Your task to perform on an android device: toggle pop-ups in chrome Image 0: 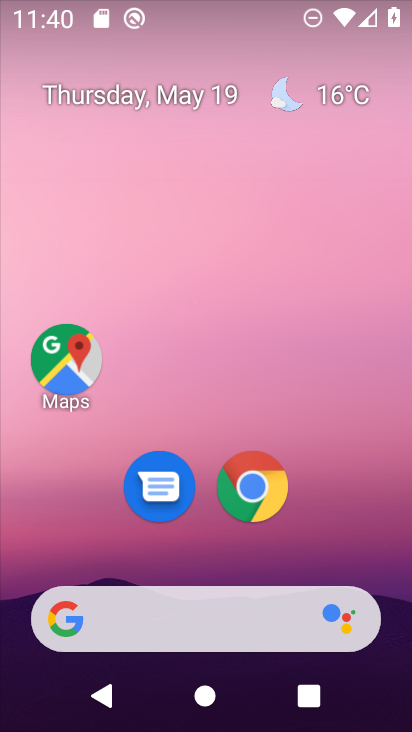
Step 0: click (247, 506)
Your task to perform on an android device: toggle pop-ups in chrome Image 1: 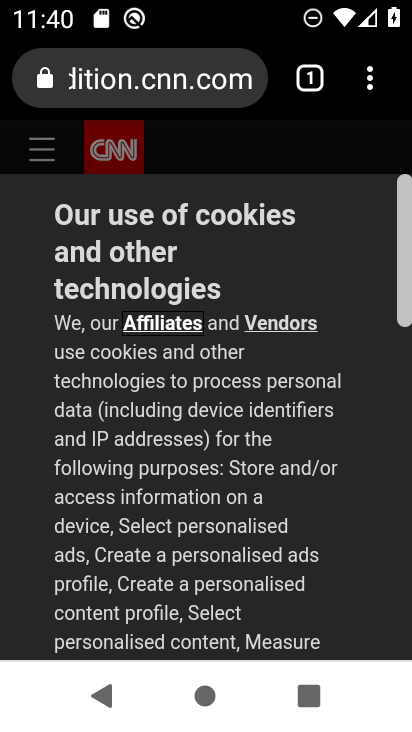
Step 1: click (382, 65)
Your task to perform on an android device: toggle pop-ups in chrome Image 2: 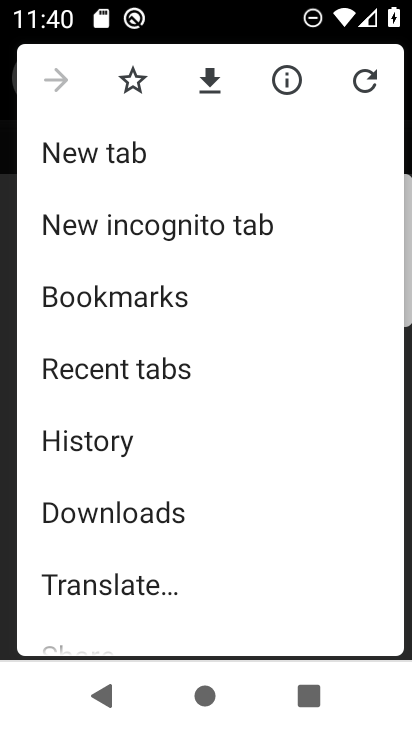
Step 2: drag from (214, 557) to (242, 172)
Your task to perform on an android device: toggle pop-ups in chrome Image 3: 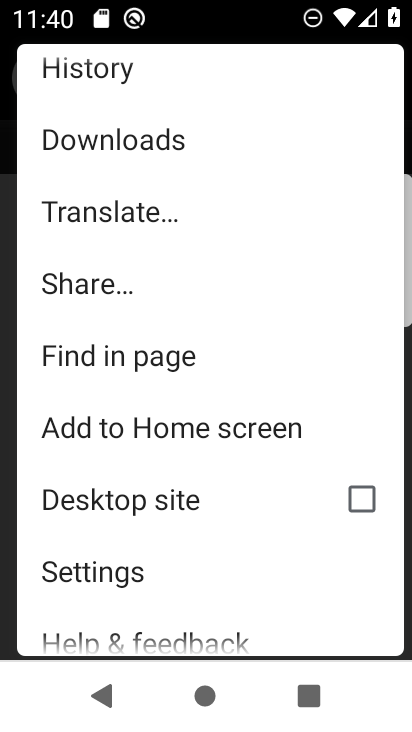
Step 3: click (207, 588)
Your task to perform on an android device: toggle pop-ups in chrome Image 4: 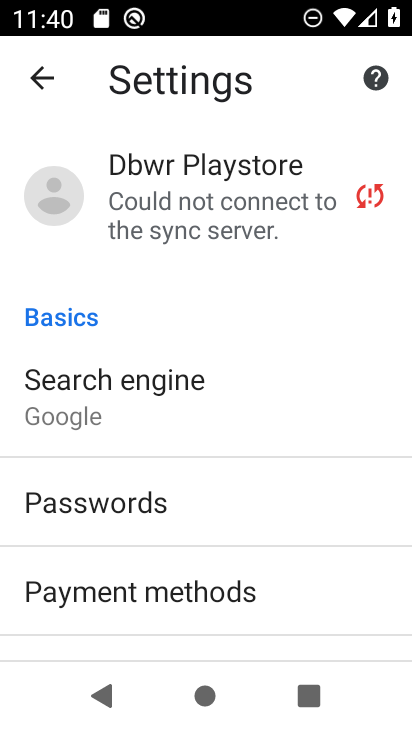
Step 4: drag from (193, 593) to (201, 366)
Your task to perform on an android device: toggle pop-ups in chrome Image 5: 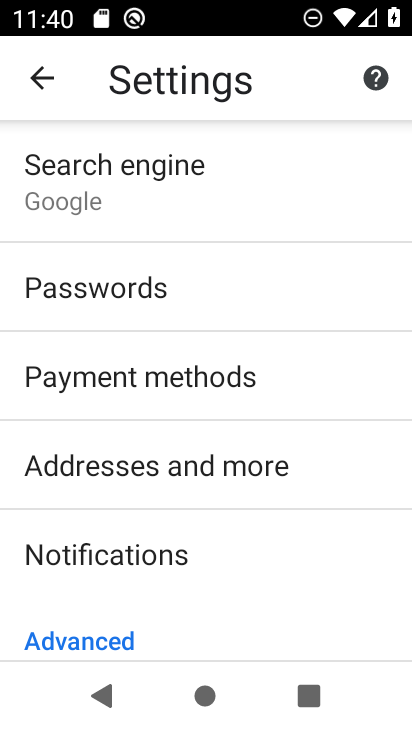
Step 5: drag from (176, 536) to (218, 274)
Your task to perform on an android device: toggle pop-ups in chrome Image 6: 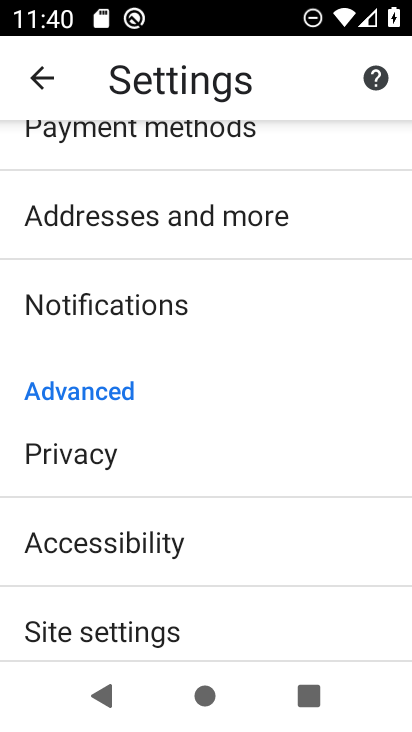
Step 6: click (157, 613)
Your task to perform on an android device: toggle pop-ups in chrome Image 7: 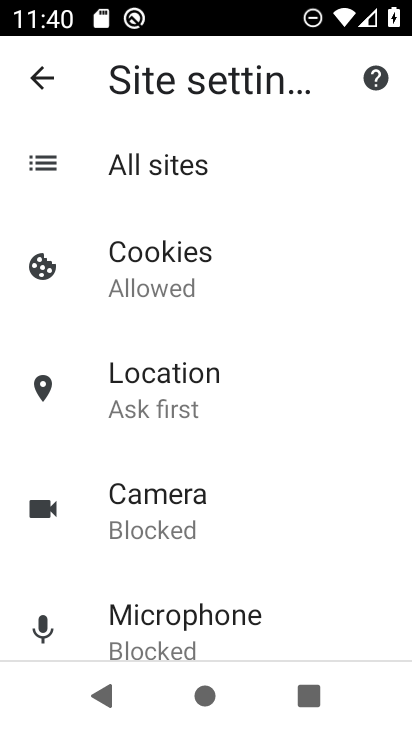
Step 7: drag from (208, 558) to (253, 263)
Your task to perform on an android device: toggle pop-ups in chrome Image 8: 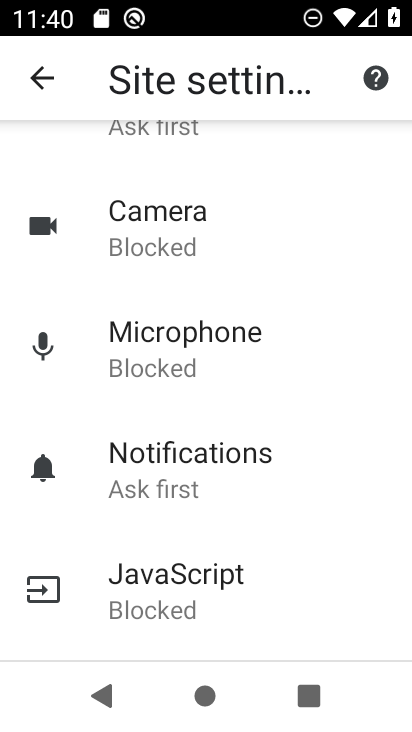
Step 8: drag from (233, 559) to (286, 340)
Your task to perform on an android device: toggle pop-ups in chrome Image 9: 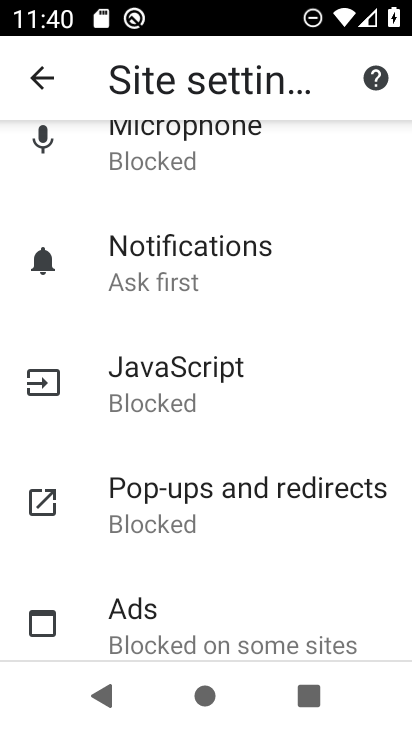
Step 9: click (263, 529)
Your task to perform on an android device: toggle pop-ups in chrome Image 10: 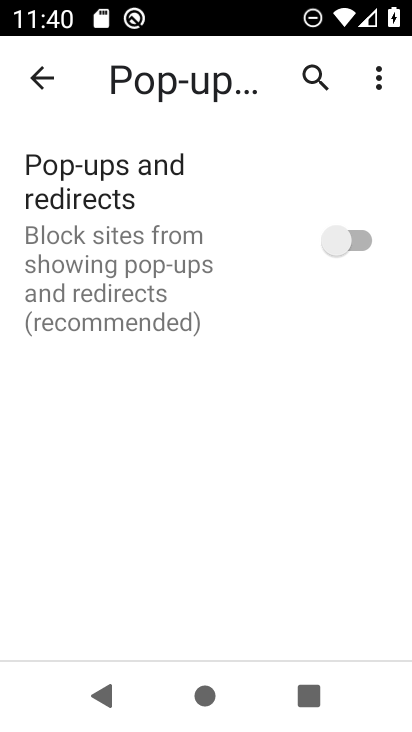
Step 10: click (373, 248)
Your task to perform on an android device: toggle pop-ups in chrome Image 11: 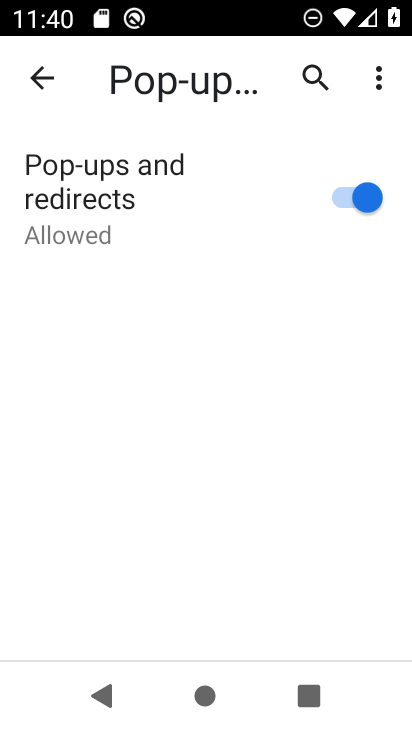
Step 11: task complete